Your task to perform on an android device: When is my next appointment? Image 0: 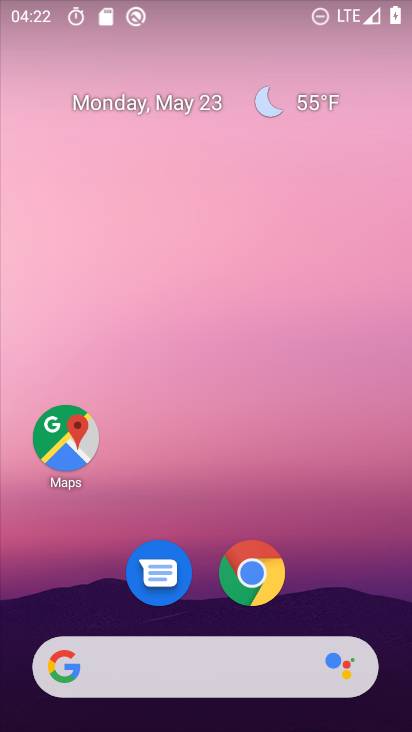
Step 0: click (171, 101)
Your task to perform on an android device: When is my next appointment? Image 1: 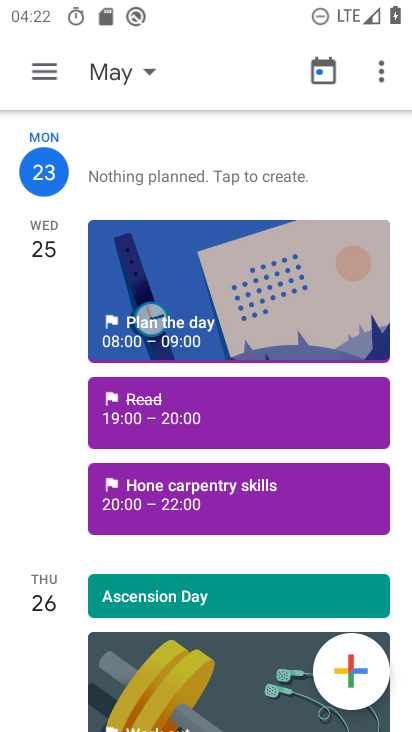
Step 1: task complete